Your task to perform on an android device: empty trash in google photos Image 0: 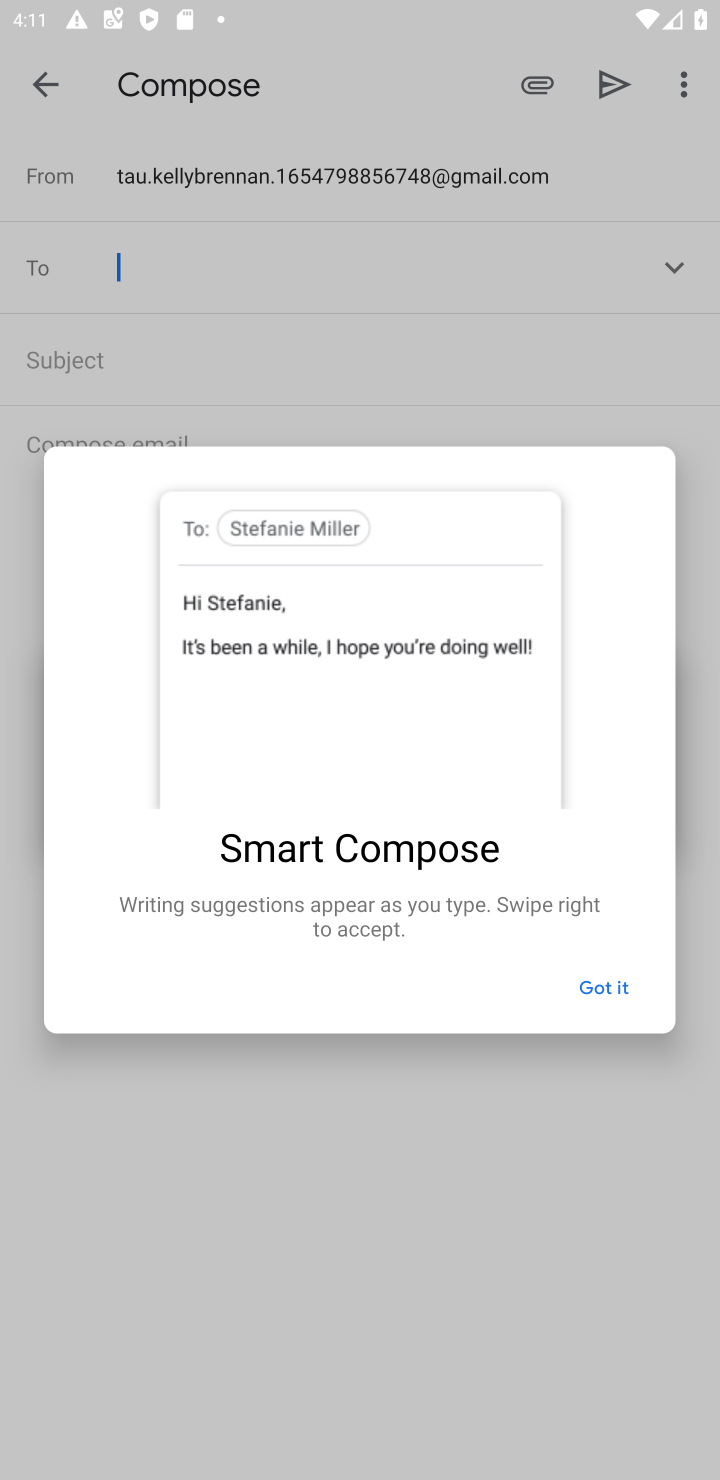
Step 0: press home button
Your task to perform on an android device: empty trash in google photos Image 1: 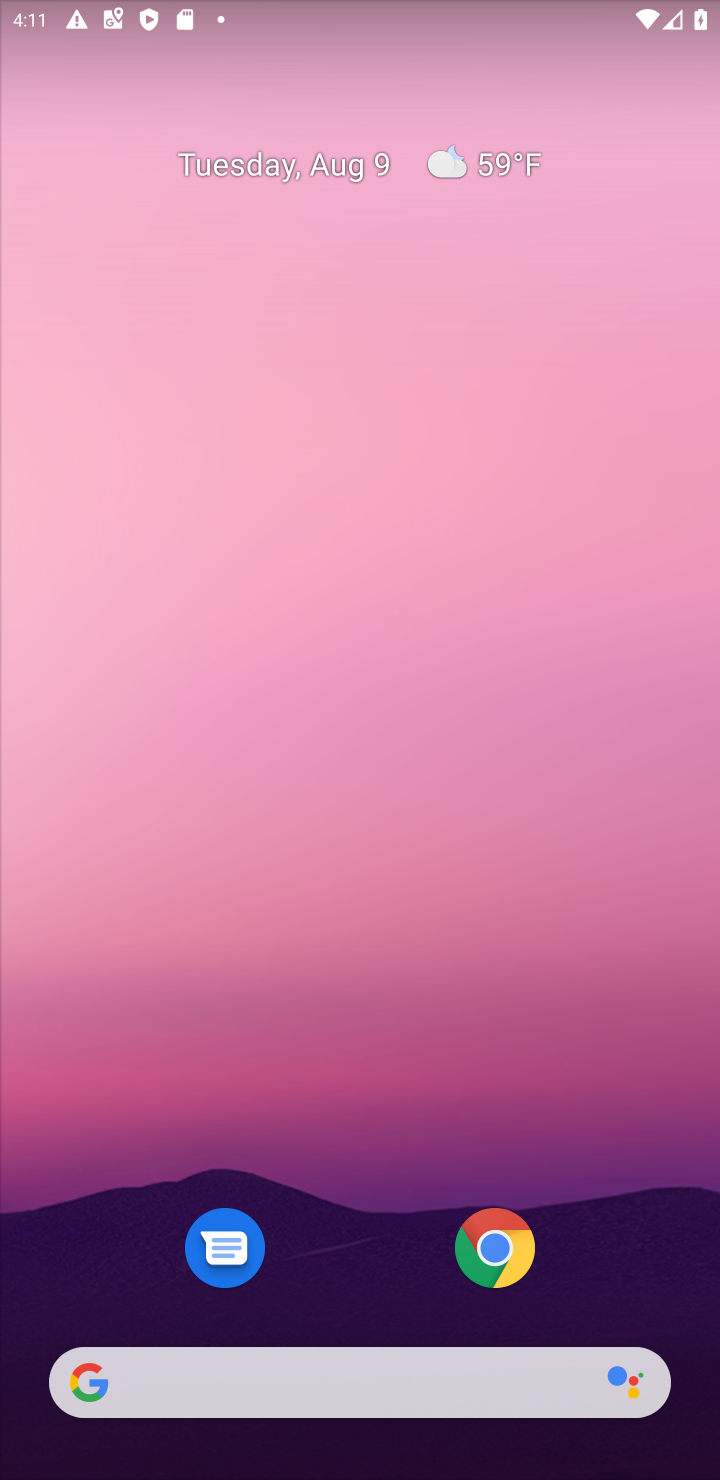
Step 1: drag from (323, 1300) to (35, 11)
Your task to perform on an android device: empty trash in google photos Image 2: 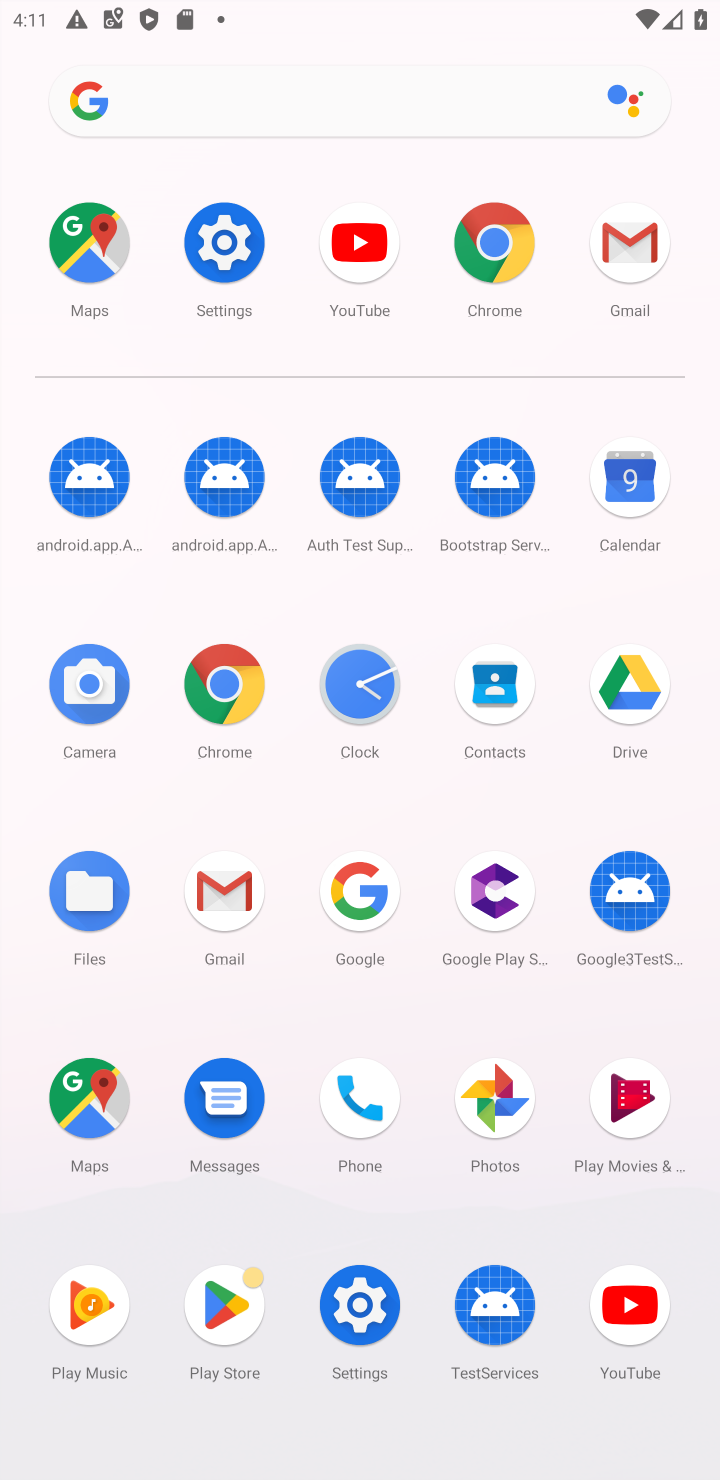
Step 2: click (480, 1111)
Your task to perform on an android device: empty trash in google photos Image 3: 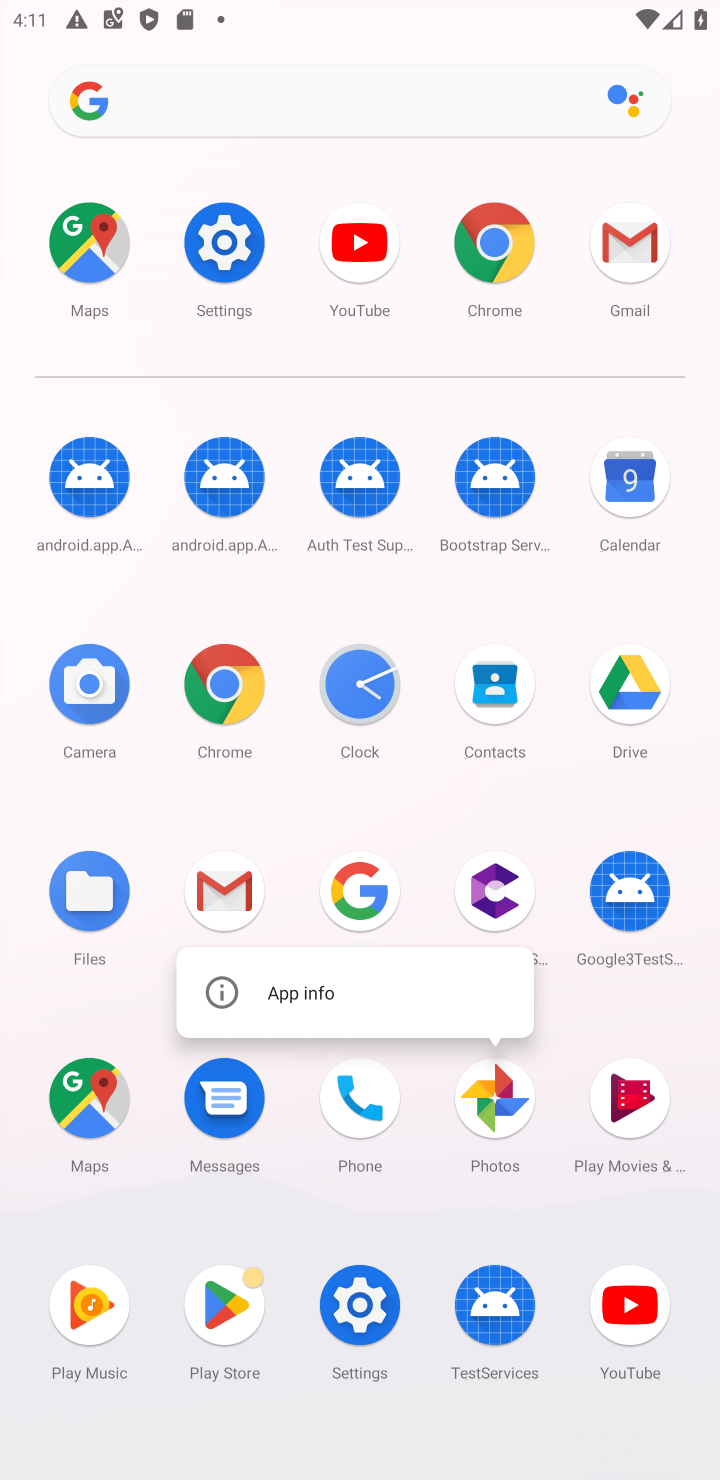
Step 3: click (496, 1075)
Your task to perform on an android device: empty trash in google photos Image 4: 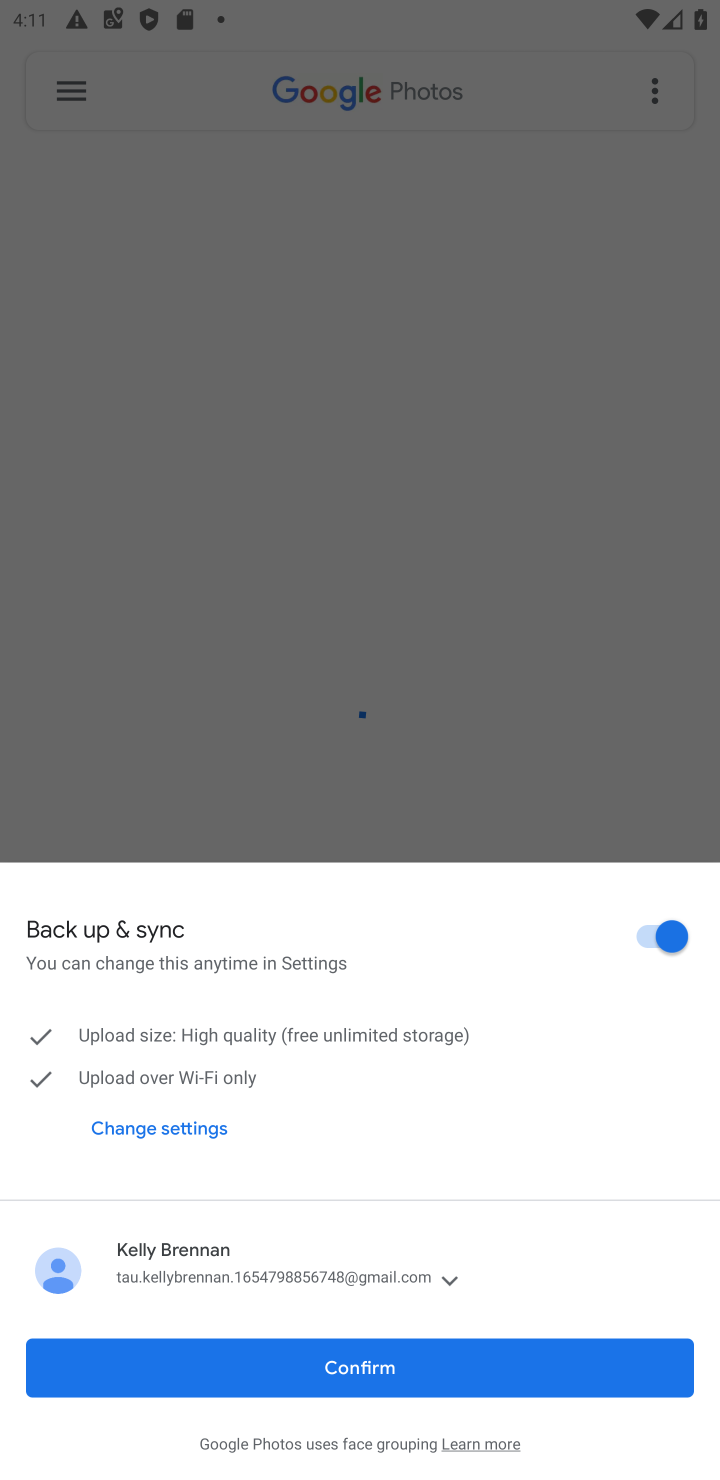
Step 4: click (451, 1376)
Your task to perform on an android device: empty trash in google photos Image 5: 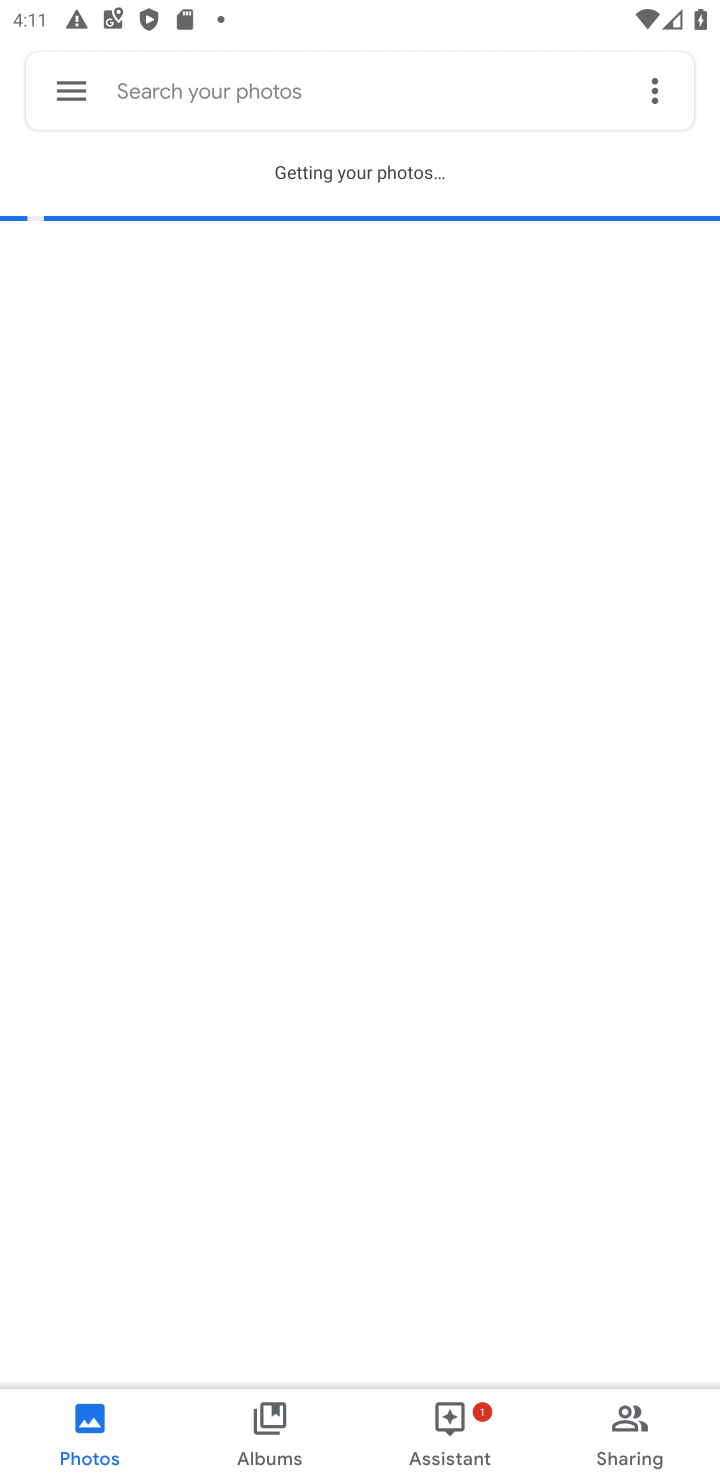
Step 5: click (82, 103)
Your task to perform on an android device: empty trash in google photos Image 6: 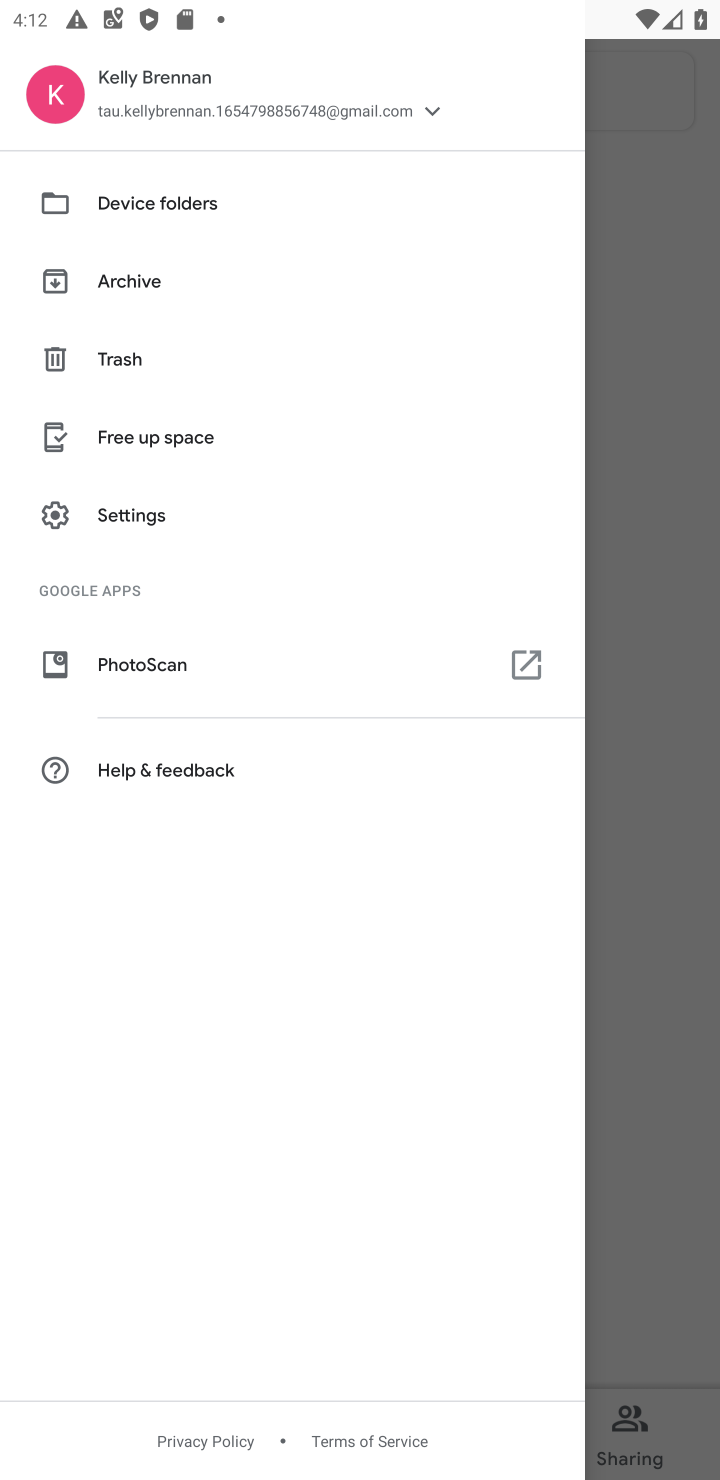
Step 6: click (112, 344)
Your task to perform on an android device: empty trash in google photos Image 7: 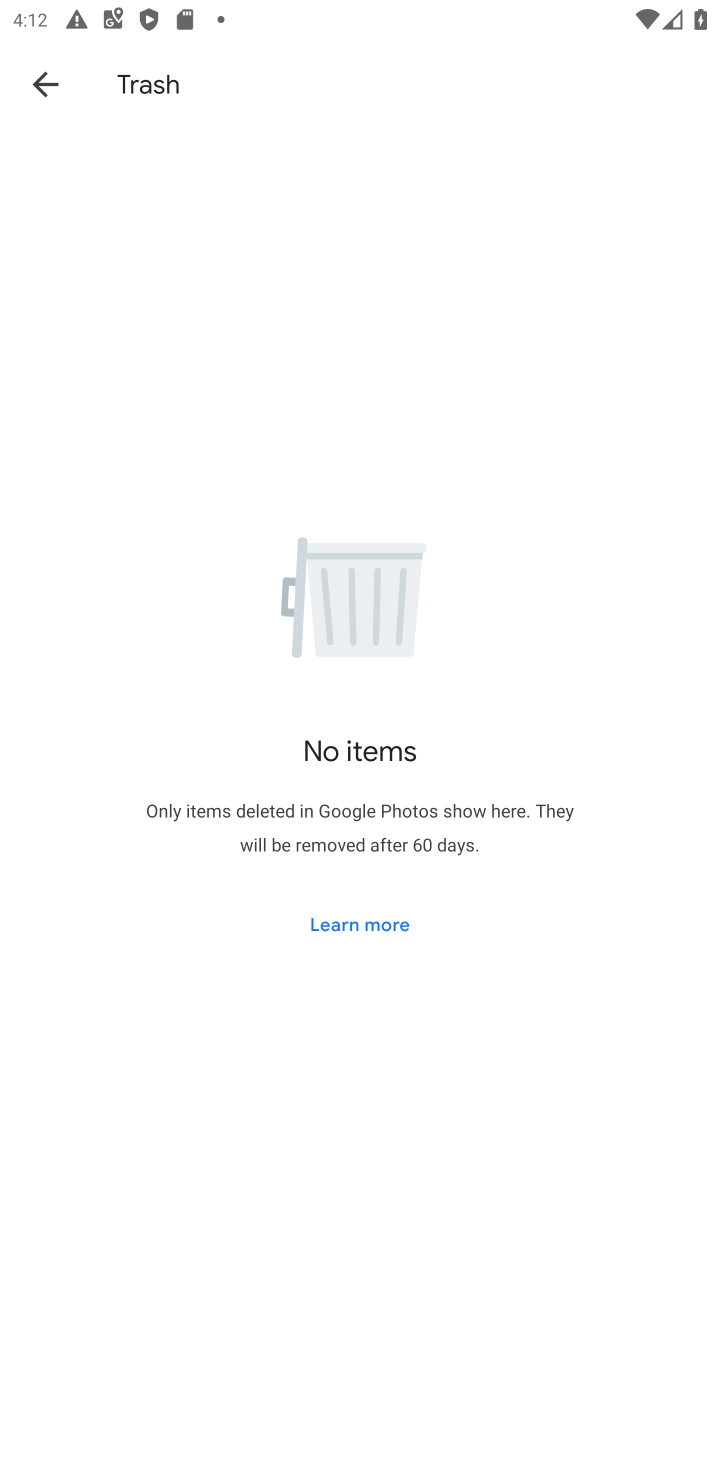
Step 7: task complete